Your task to perform on an android device: open app "DoorDash - Food Delivery" (install if not already installed) and enter user name: "Richard@outlook.com" and password: "informally" Image 0: 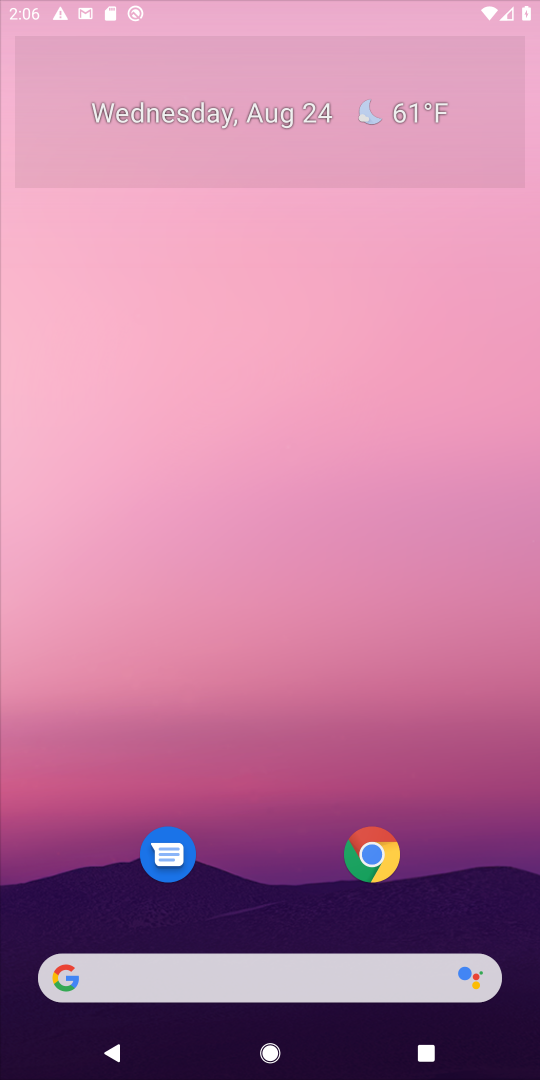
Step 0: press home button
Your task to perform on an android device: open app "DoorDash - Food Delivery" (install if not already installed) and enter user name: "Richard@outlook.com" and password: "informally" Image 1: 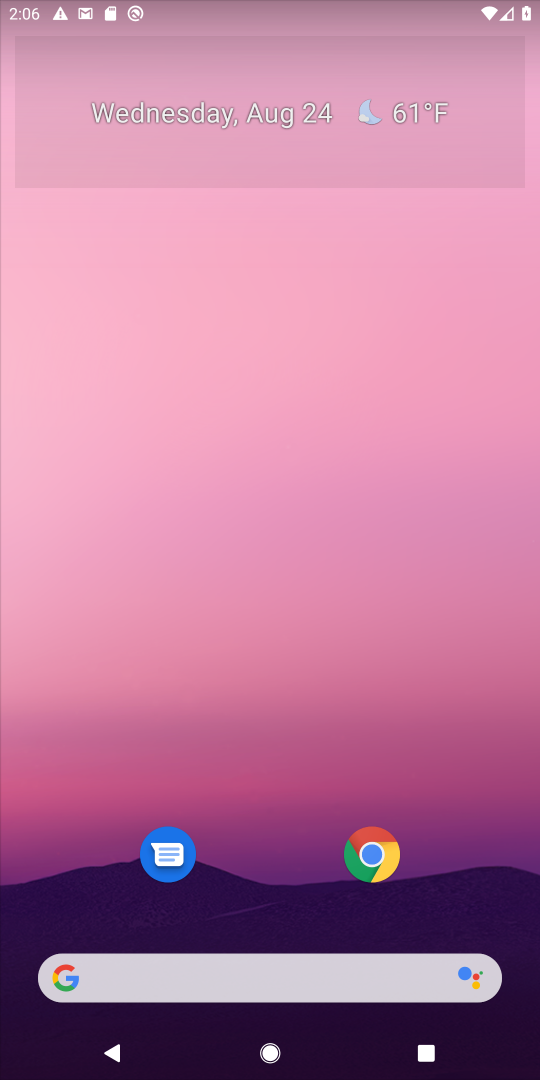
Step 1: drag from (475, 822) to (474, 133)
Your task to perform on an android device: open app "DoorDash - Food Delivery" (install if not already installed) and enter user name: "Richard@outlook.com" and password: "informally" Image 2: 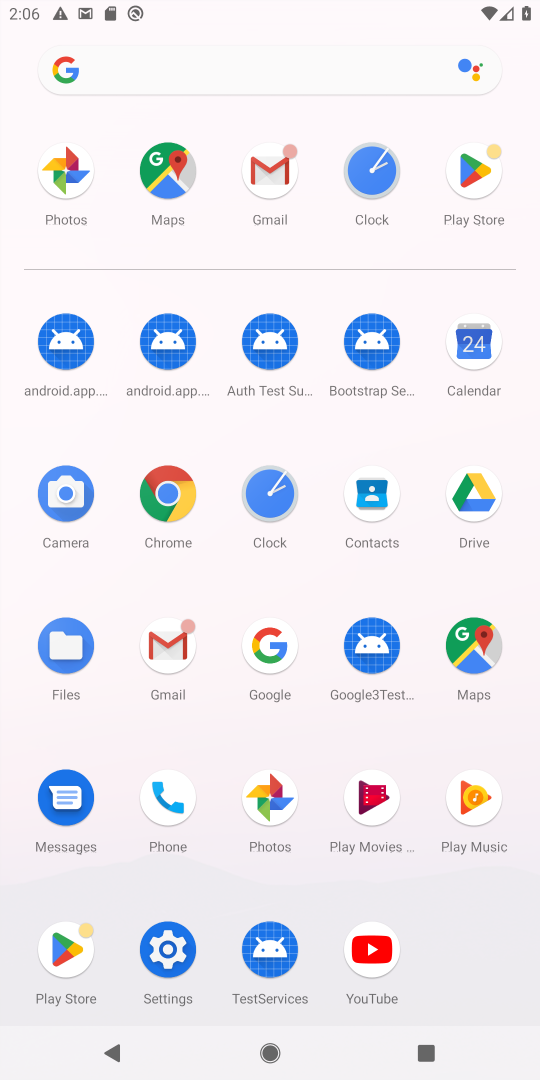
Step 2: click (469, 163)
Your task to perform on an android device: open app "DoorDash - Food Delivery" (install if not already installed) and enter user name: "Richard@outlook.com" and password: "informally" Image 3: 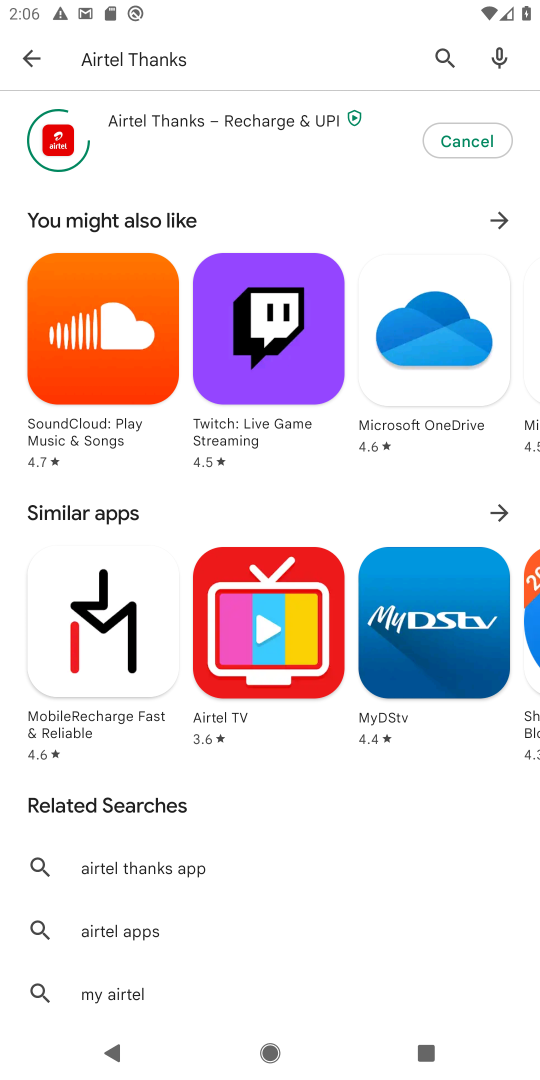
Step 3: press back button
Your task to perform on an android device: open app "DoorDash - Food Delivery" (install if not already installed) and enter user name: "Richard@outlook.com" and password: "informally" Image 4: 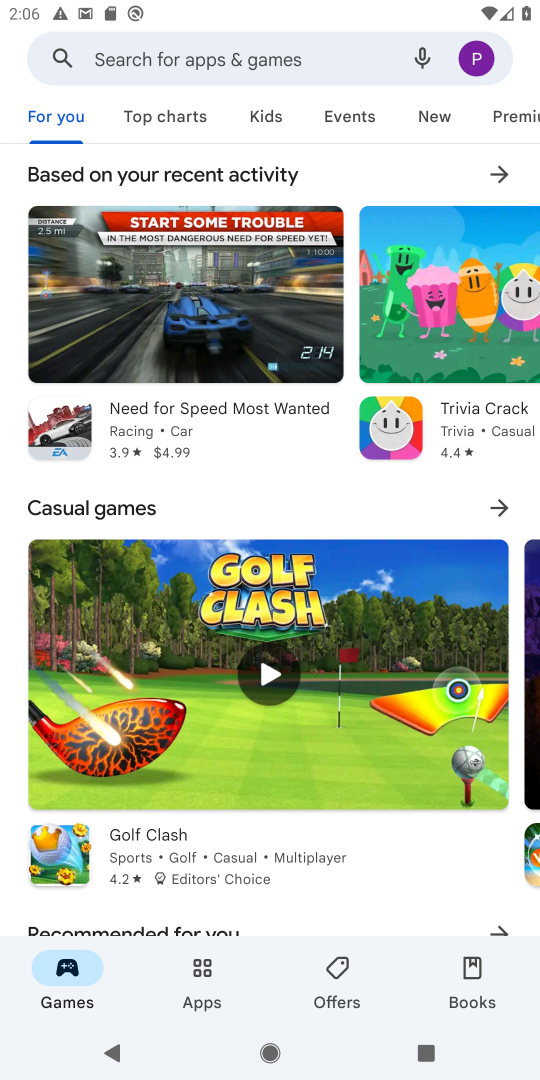
Step 4: click (294, 58)
Your task to perform on an android device: open app "DoorDash - Food Delivery" (install if not already installed) and enter user name: "Richard@outlook.com" and password: "informally" Image 5: 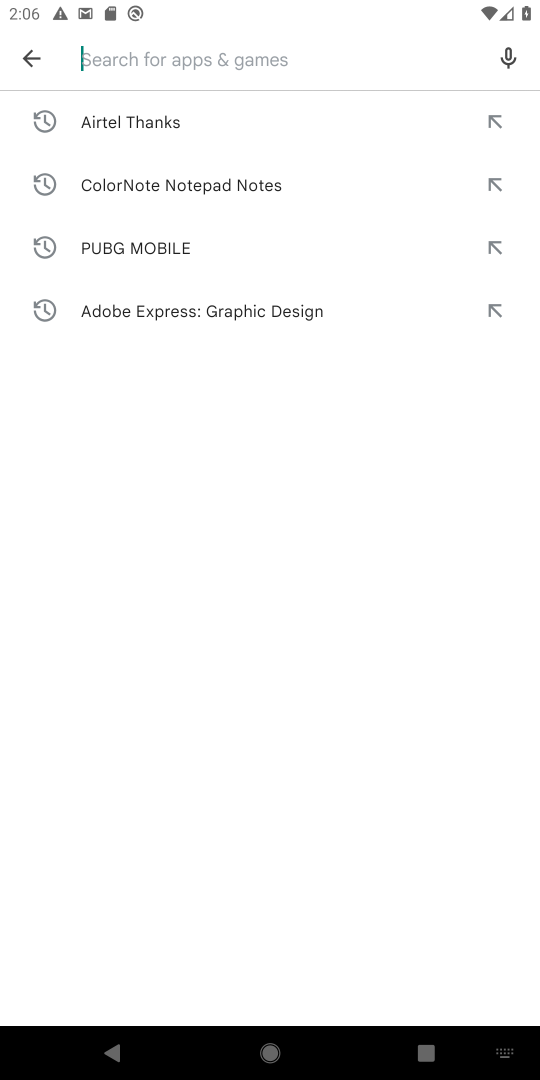
Step 5: press enter
Your task to perform on an android device: open app "DoorDash - Food Delivery" (install if not already installed) and enter user name: "Richard@outlook.com" and password: "informally" Image 6: 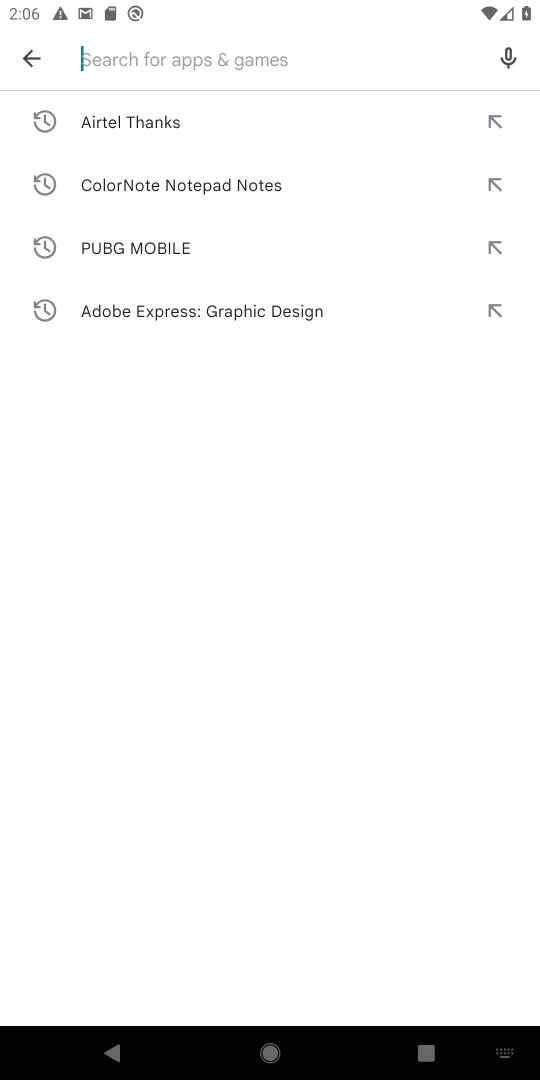
Step 6: type "DoorDash - Food Delivery"
Your task to perform on an android device: open app "DoorDash - Food Delivery" (install if not already installed) and enter user name: "Richard@outlook.com" and password: "informally" Image 7: 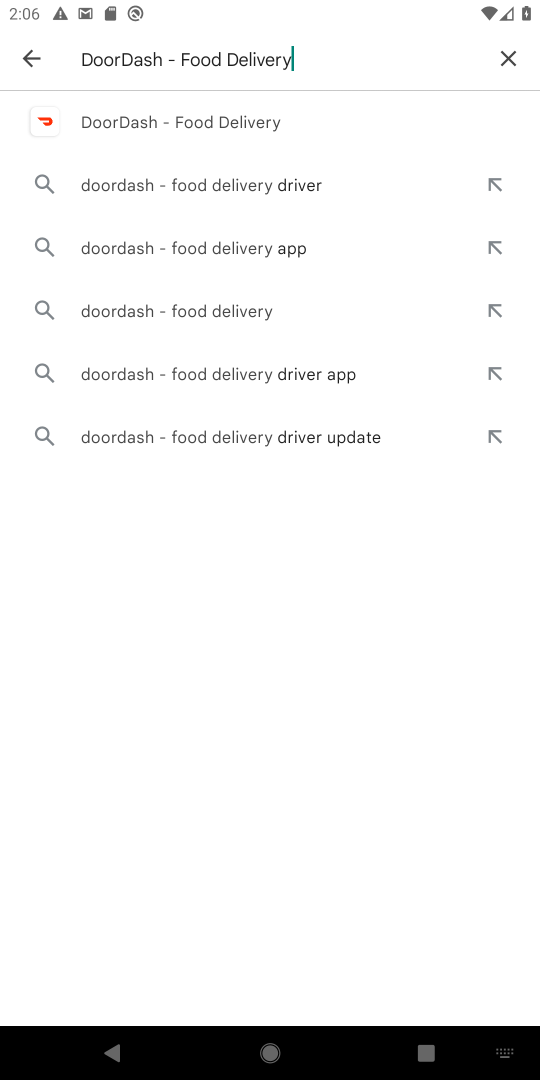
Step 7: click (251, 114)
Your task to perform on an android device: open app "DoorDash - Food Delivery" (install if not already installed) and enter user name: "Richard@outlook.com" and password: "informally" Image 8: 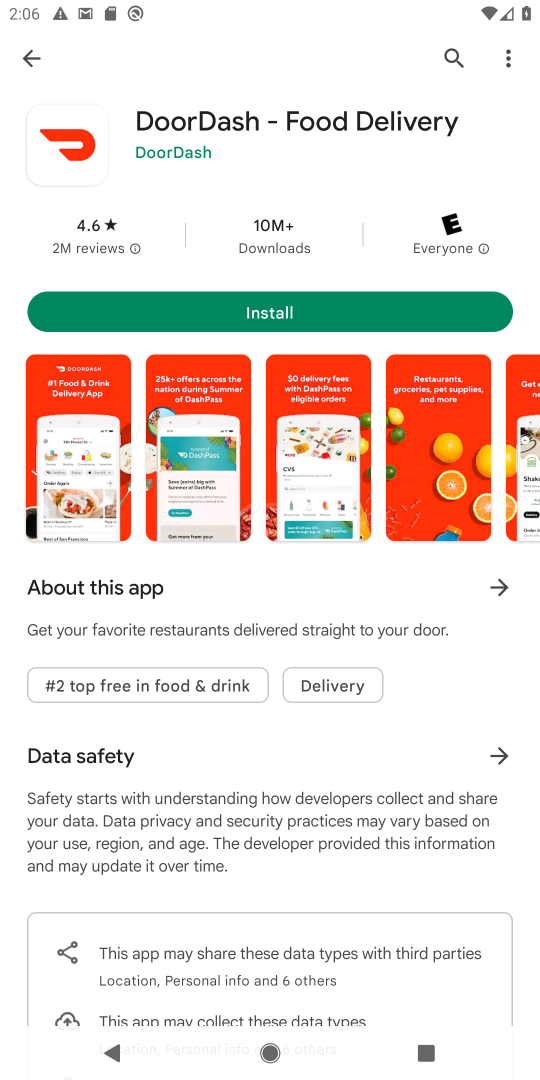
Step 8: click (376, 318)
Your task to perform on an android device: open app "DoorDash - Food Delivery" (install if not already installed) and enter user name: "Richard@outlook.com" and password: "informally" Image 9: 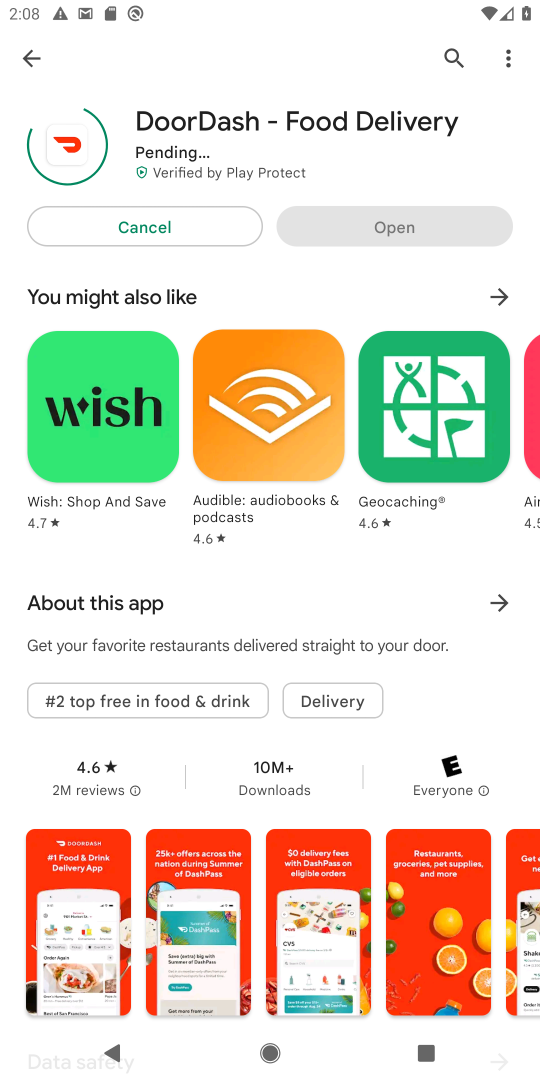
Step 9: task complete